Your task to perform on an android device: Open eBay Image 0: 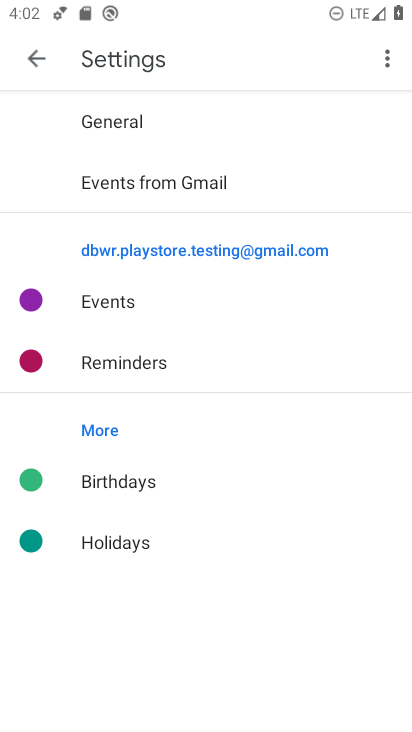
Step 0: press home button
Your task to perform on an android device: Open eBay Image 1: 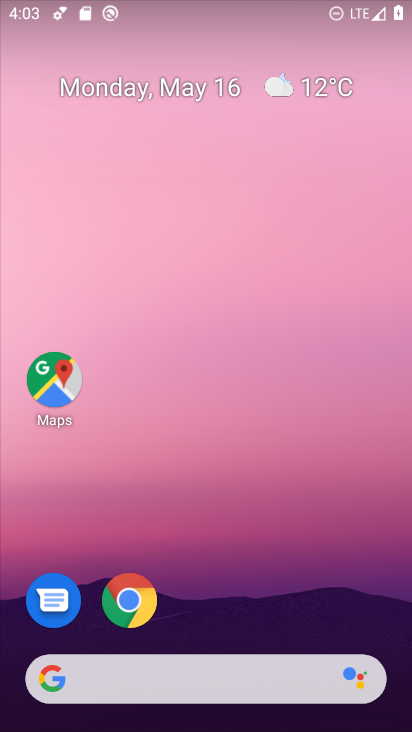
Step 1: click (123, 611)
Your task to perform on an android device: Open eBay Image 2: 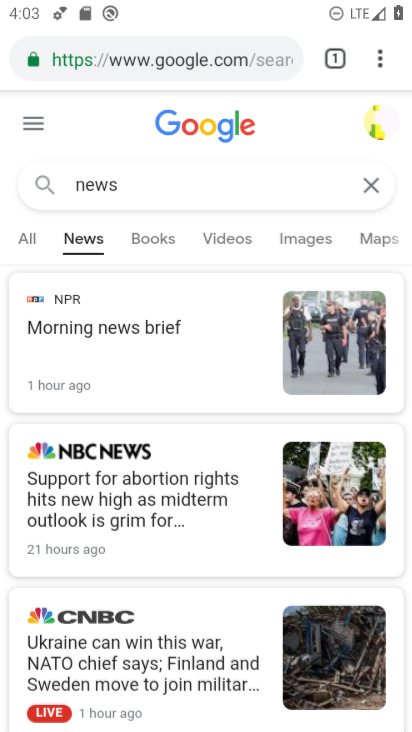
Step 2: click (226, 51)
Your task to perform on an android device: Open eBay Image 3: 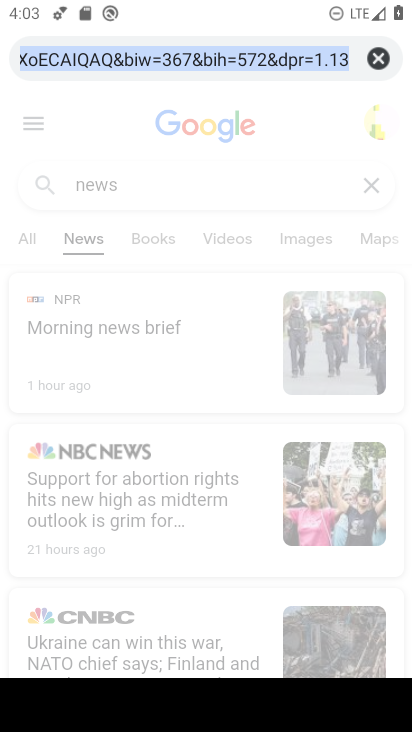
Step 3: type "ebay"
Your task to perform on an android device: Open eBay Image 4: 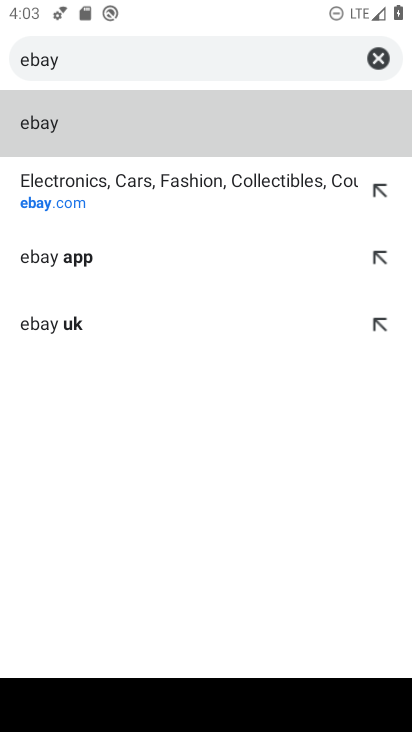
Step 4: click (56, 204)
Your task to perform on an android device: Open eBay Image 5: 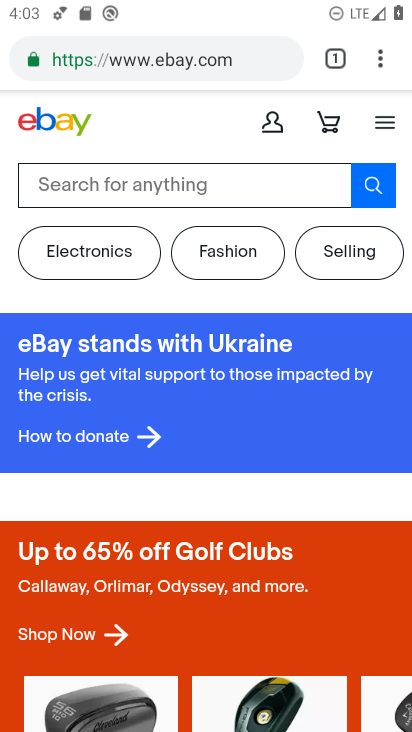
Step 5: task complete